Your task to perform on an android device: Find coffee shops on Maps Image 0: 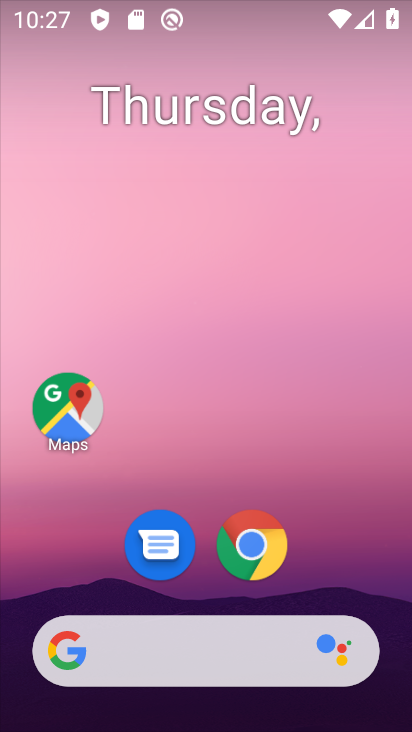
Step 0: click (64, 413)
Your task to perform on an android device: Find coffee shops on Maps Image 1: 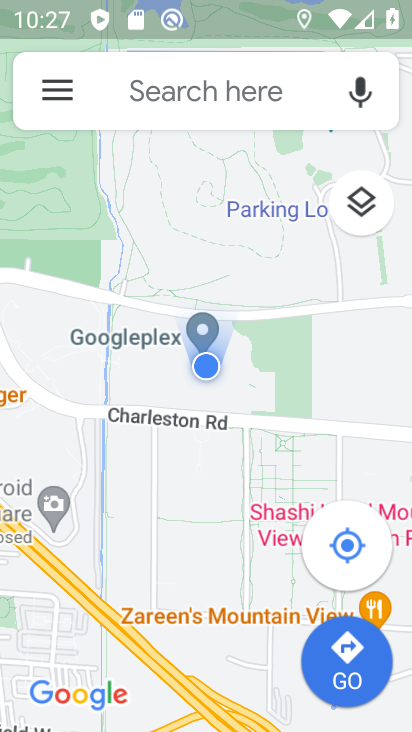
Step 1: click (175, 96)
Your task to perform on an android device: Find coffee shops on Maps Image 2: 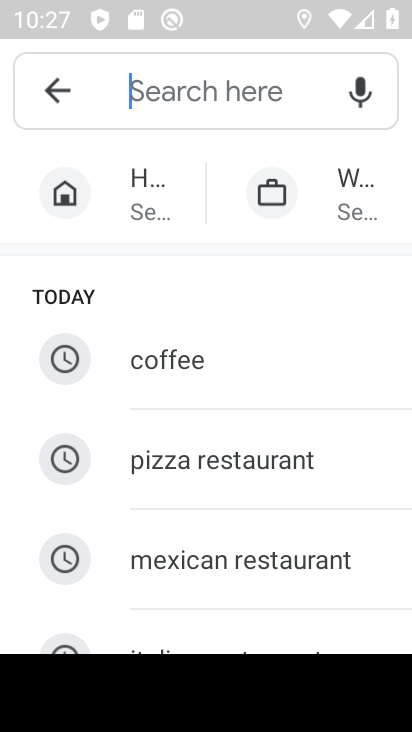
Step 2: type "coffee shops"
Your task to perform on an android device: Find coffee shops on Maps Image 3: 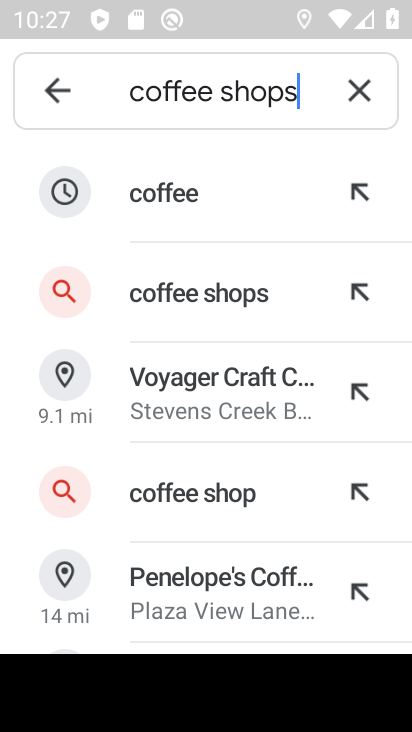
Step 3: click (239, 290)
Your task to perform on an android device: Find coffee shops on Maps Image 4: 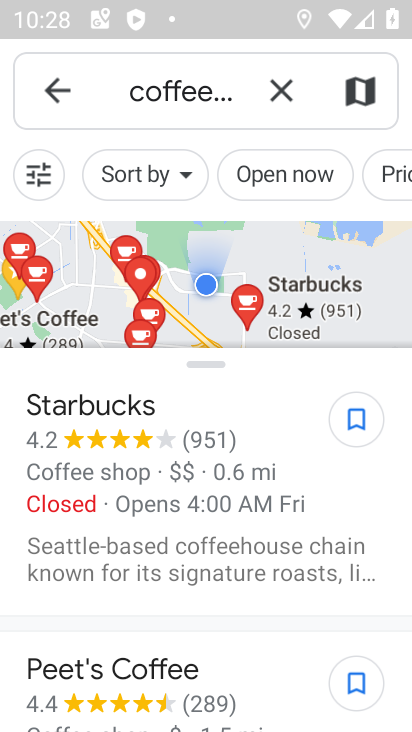
Step 4: task complete